Your task to perform on an android device: Search for vegetarian restaurants on Maps Image 0: 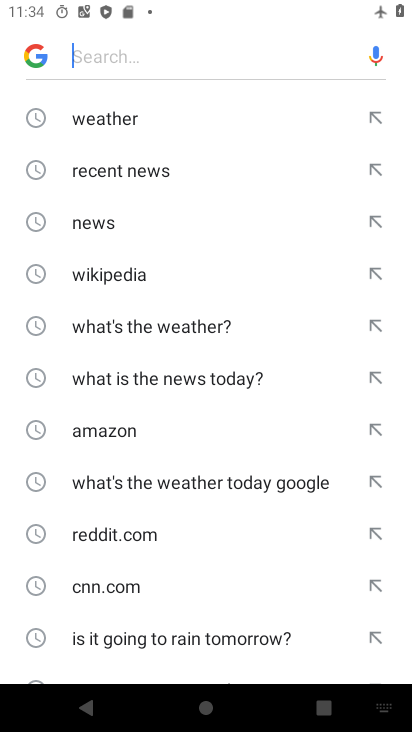
Step 0: press home button
Your task to perform on an android device: Search for vegetarian restaurants on Maps Image 1: 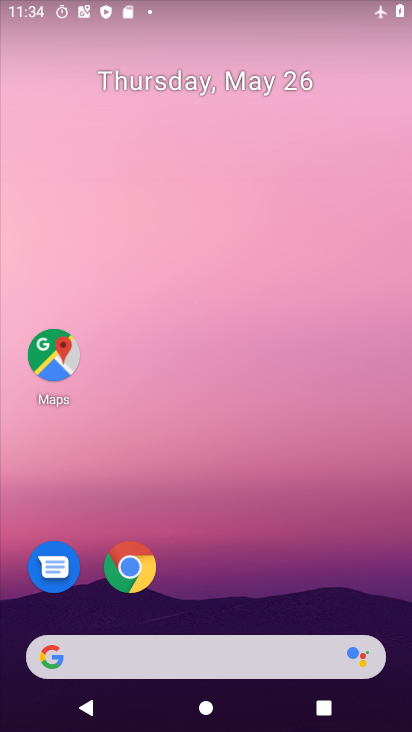
Step 1: click (66, 371)
Your task to perform on an android device: Search for vegetarian restaurants on Maps Image 2: 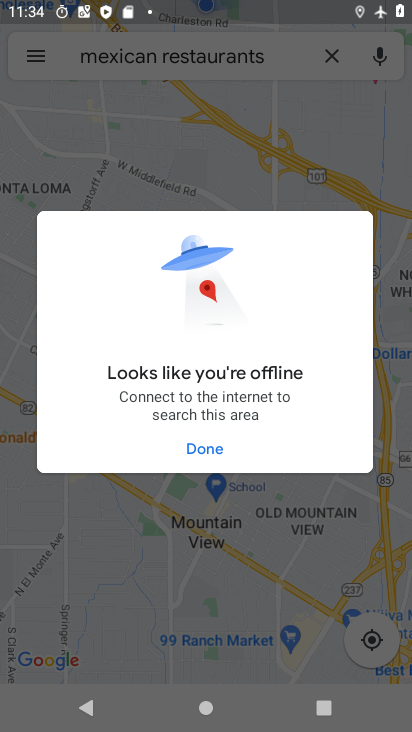
Step 2: task complete